Your task to perform on an android device: check the backup settings in the google photos Image 0: 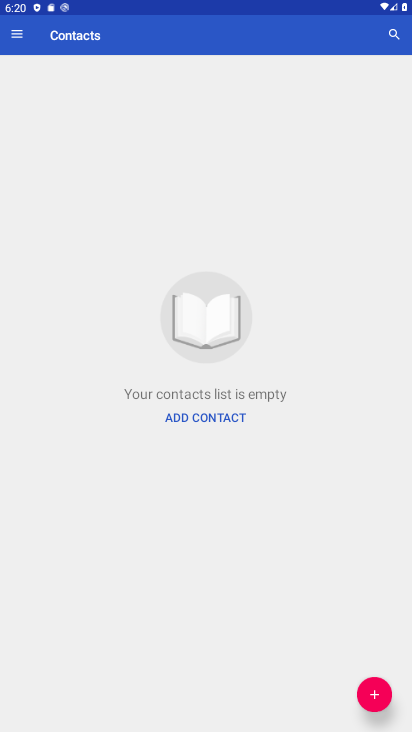
Step 0: press home button
Your task to perform on an android device: check the backup settings in the google photos Image 1: 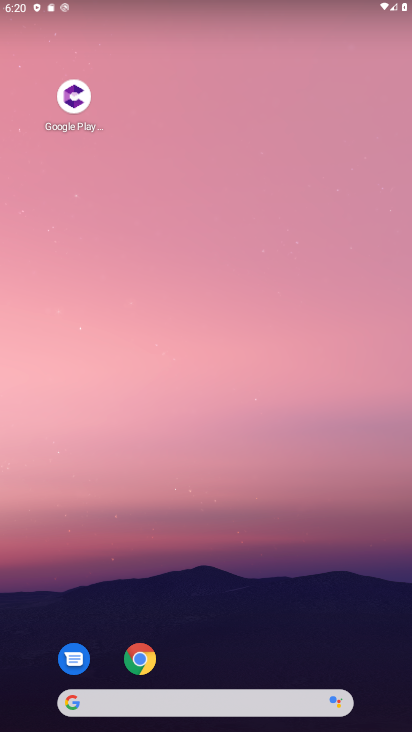
Step 1: drag from (147, 662) to (284, 5)
Your task to perform on an android device: check the backup settings in the google photos Image 2: 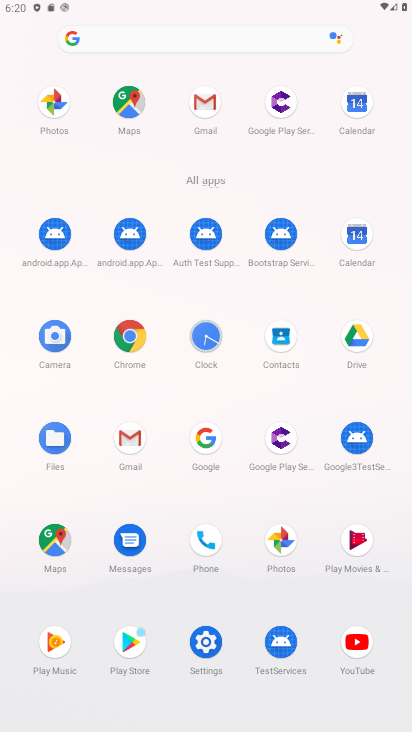
Step 2: click (271, 540)
Your task to perform on an android device: check the backup settings in the google photos Image 3: 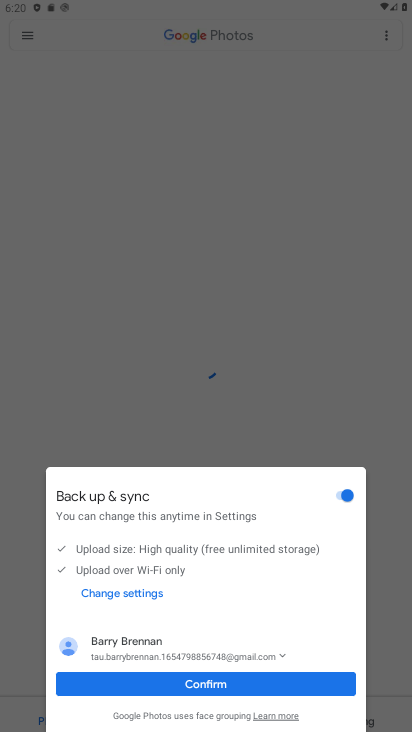
Step 3: click (175, 681)
Your task to perform on an android device: check the backup settings in the google photos Image 4: 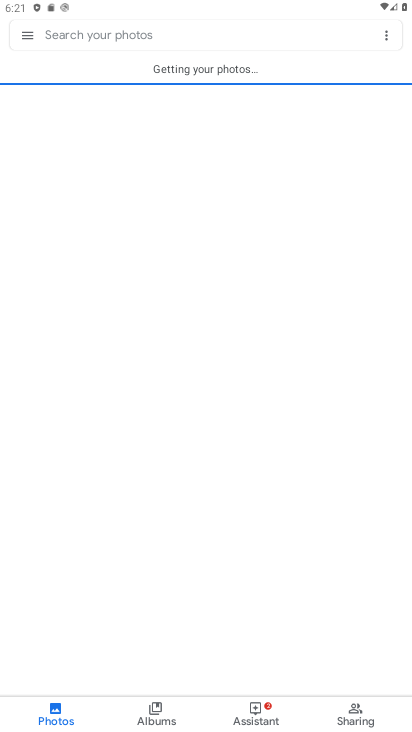
Step 4: click (32, 30)
Your task to perform on an android device: check the backup settings in the google photos Image 5: 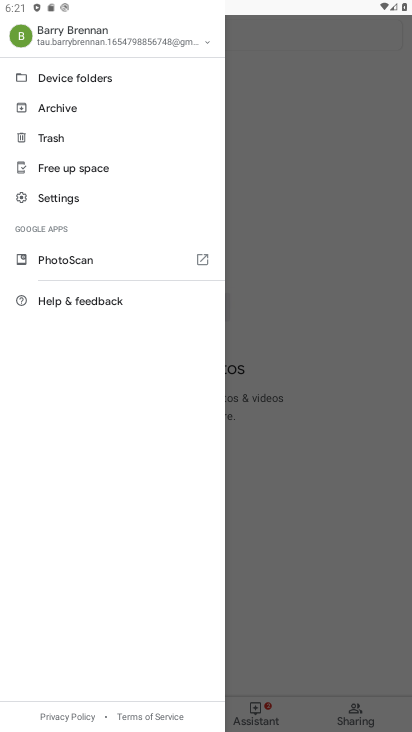
Step 5: click (73, 198)
Your task to perform on an android device: check the backup settings in the google photos Image 6: 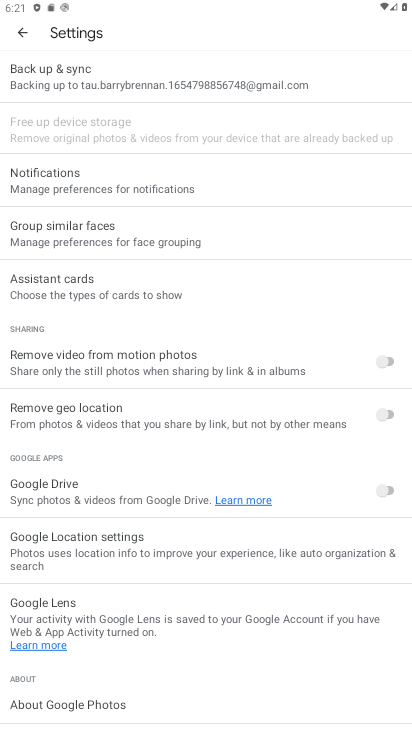
Step 6: click (103, 78)
Your task to perform on an android device: check the backup settings in the google photos Image 7: 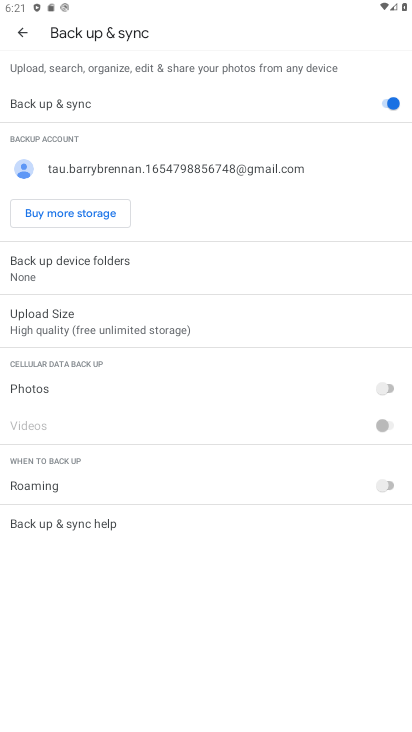
Step 7: task complete